Your task to perform on an android device: move an email to a new category in the gmail app Image 0: 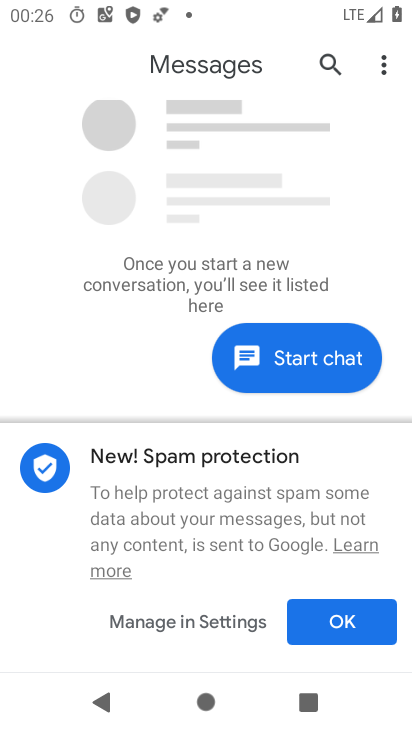
Step 0: drag from (230, 440) to (284, 28)
Your task to perform on an android device: move an email to a new category in the gmail app Image 1: 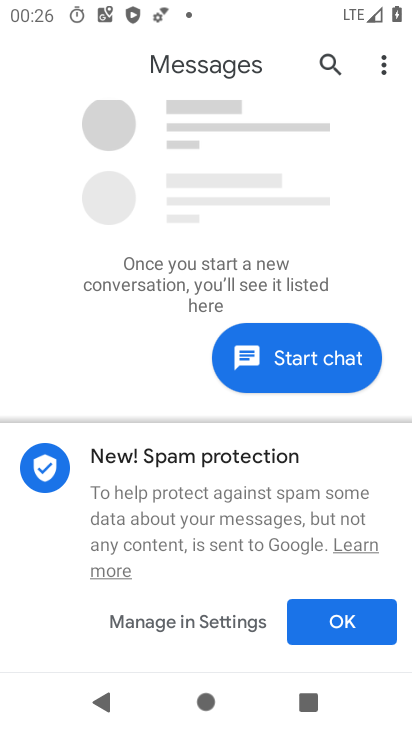
Step 1: press home button
Your task to perform on an android device: move an email to a new category in the gmail app Image 2: 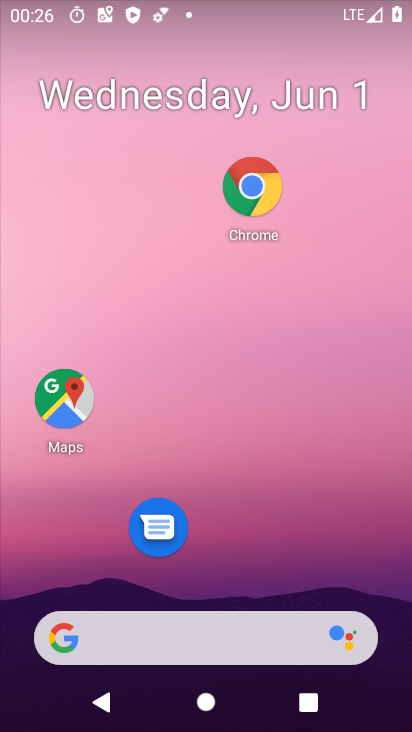
Step 2: drag from (192, 595) to (208, 55)
Your task to perform on an android device: move an email to a new category in the gmail app Image 3: 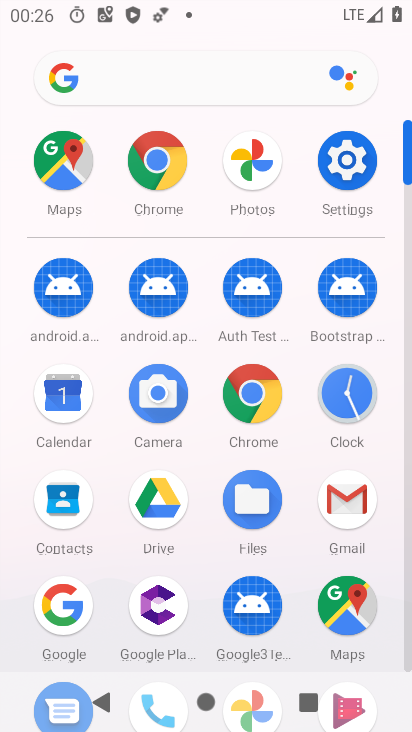
Step 3: click (347, 507)
Your task to perform on an android device: move an email to a new category in the gmail app Image 4: 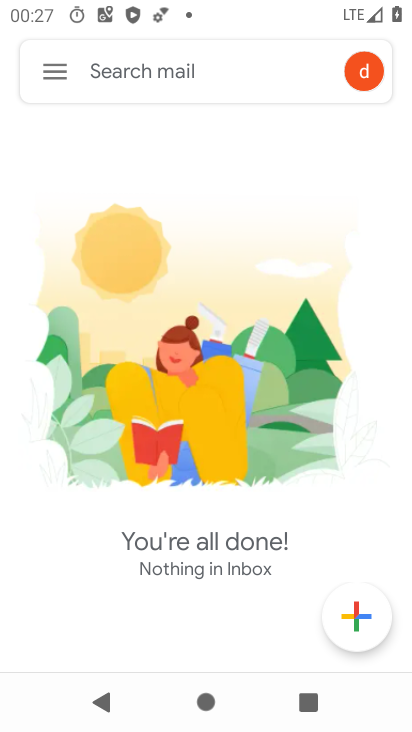
Step 4: click (70, 89)
Your task to perform on an android device: move an email to a new category in the gmail app Image 5: 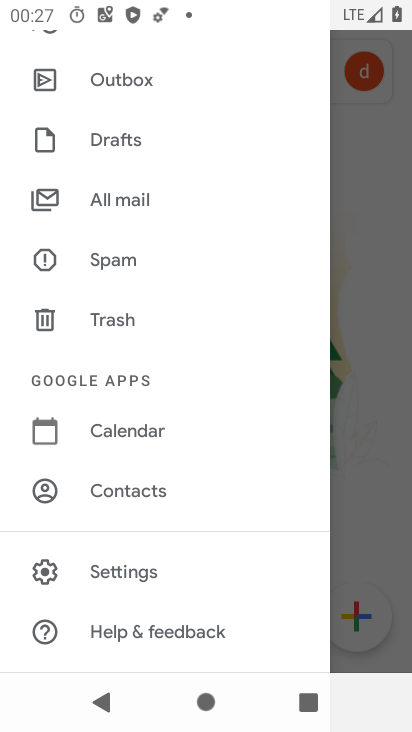
Step 5: drag from (48, 187) to (56, 43)
Your task to perform on an android device: move an email to a new category in the gmail app Image 6: 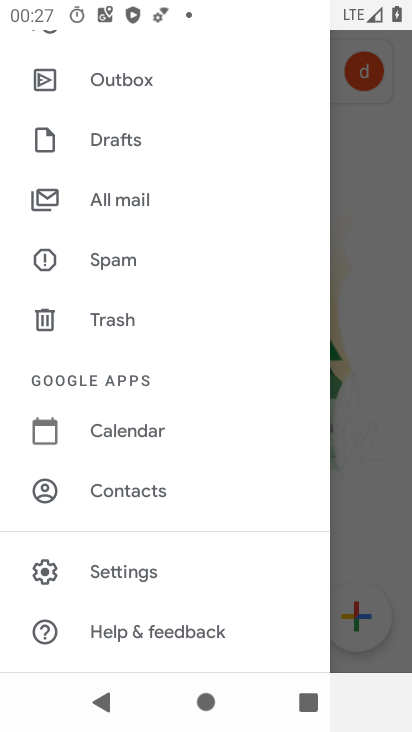
Step 6: click (135, 202)
Your task to perform on an android device: move an email to a new category in the gmail app Image 7: 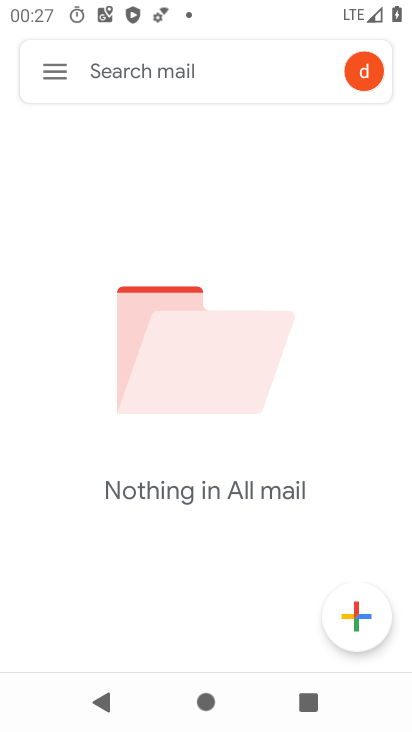
Step 7: task complete